Your task to perform on an android device: Do I have any events this weekend? Image 0: 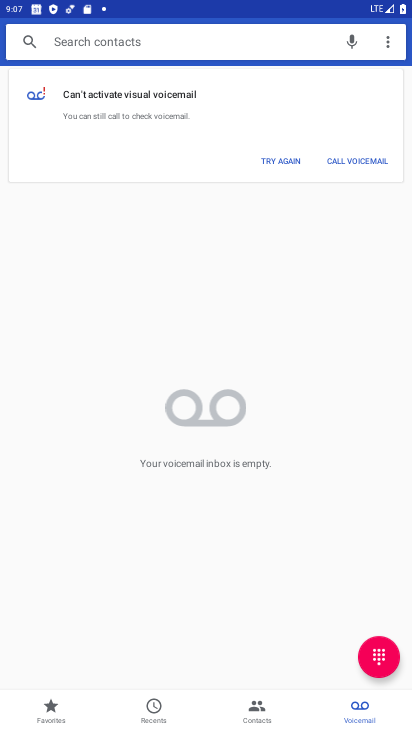
Step 0: press home button
Your task to perform on an android device: Do I have any events this weekend? Image 1: 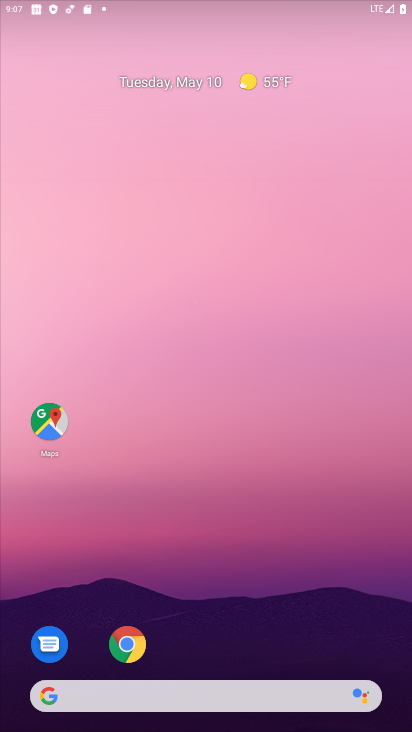
Step 1: drag from (324, 660) to (305, 132)
Your task to perform on an android device: Do I have any events this weekend? Image 2: 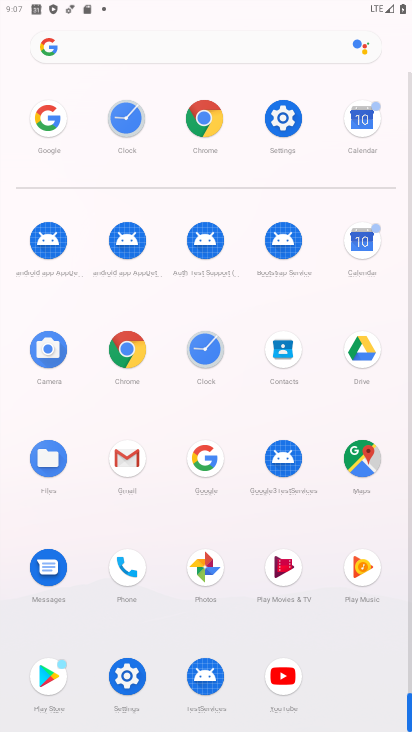
Step 2: click (373, 250)
Your task to perform on an android device: Do I have any events this weekend? Image 3: 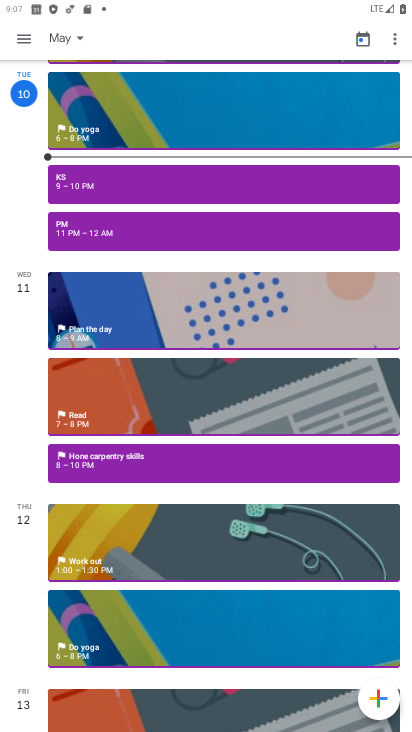
Step 3: task complete